Your task to perform on an android device: turn on improve location accuracy Image 0: 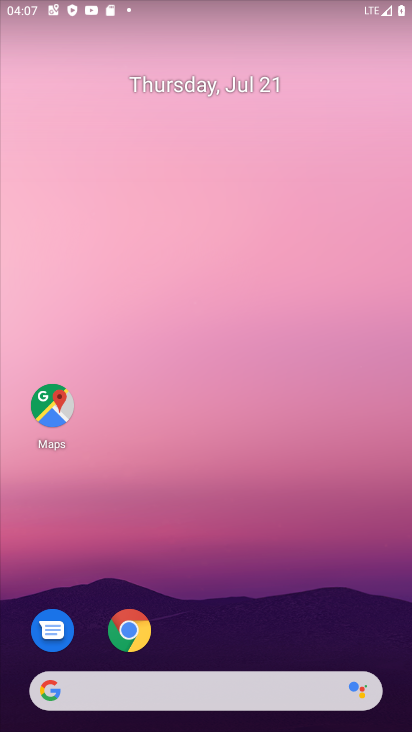
Step 0: drag from (211, 620) to (185, 232)
Your task to perform on an android device: turn on improve location accuracy Image 1: 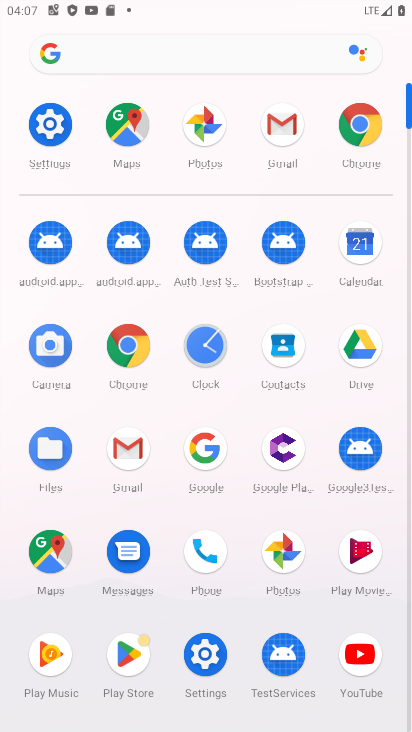
Step 1: click (48, 131)
Your task to perform on an android device: turn on improve location accuracy Image 2: 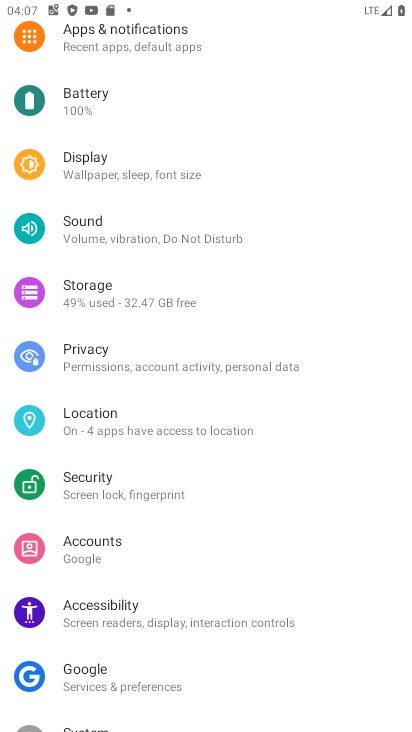
Step 2: click (161, 428)
Your task to perform on an android device: turn on improve location accuracy Image 3: 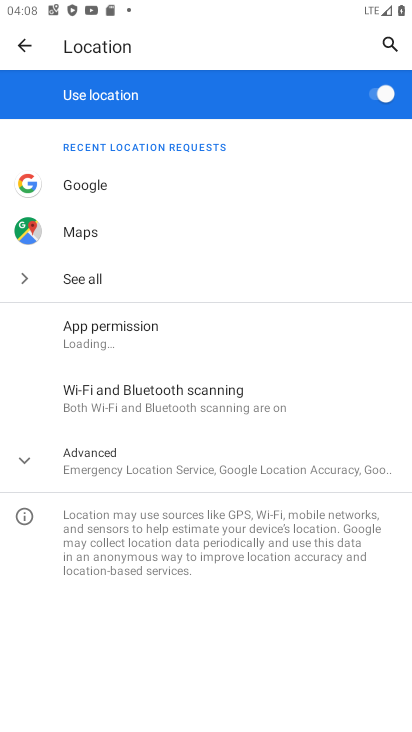
Step 3: click (113, 456)
Your task to perform on an android device: turn on improve location accuracy Image 4: 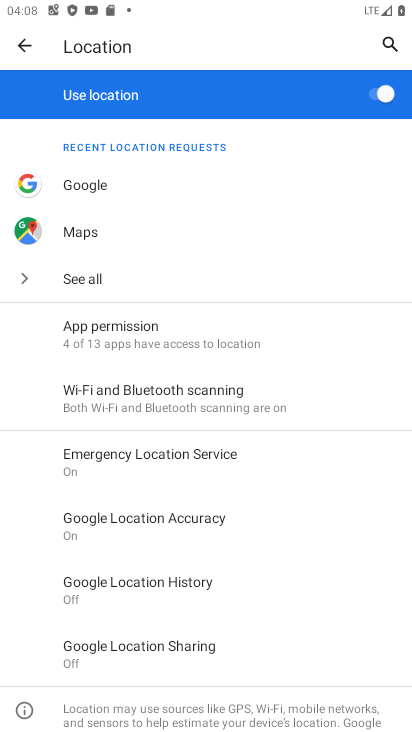
Step 4: click (229, 522)
Your task to perform on an android device: turn on improve location accuracy Image 5: 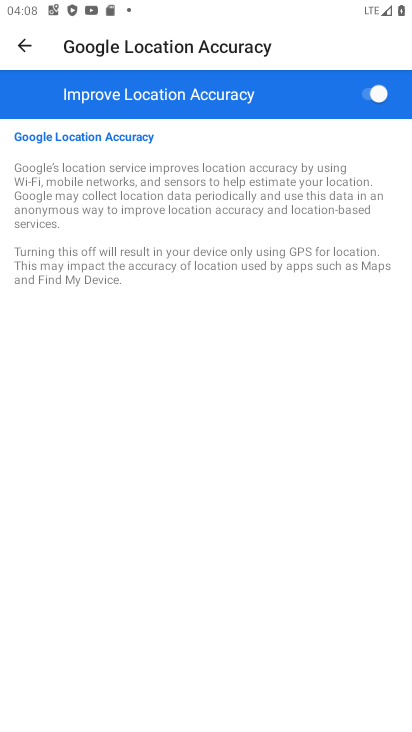
Step 5: task complete